Your task to perform on an android device: check out phone information Image 0: 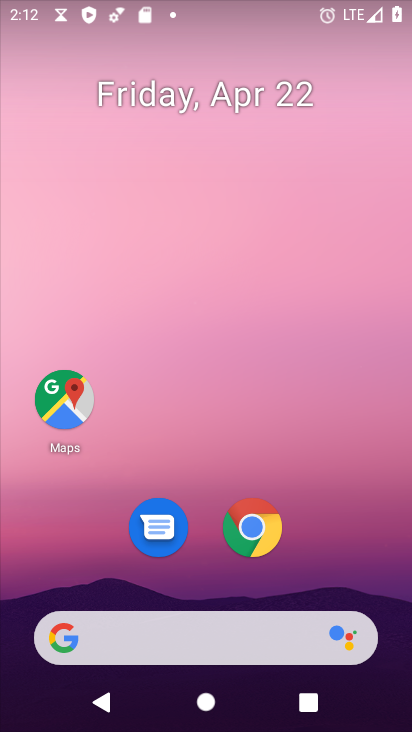
Step 0: drag from (298, 547) to (215, 160)
Your task to perform on an android device: check out phone information Image 1: 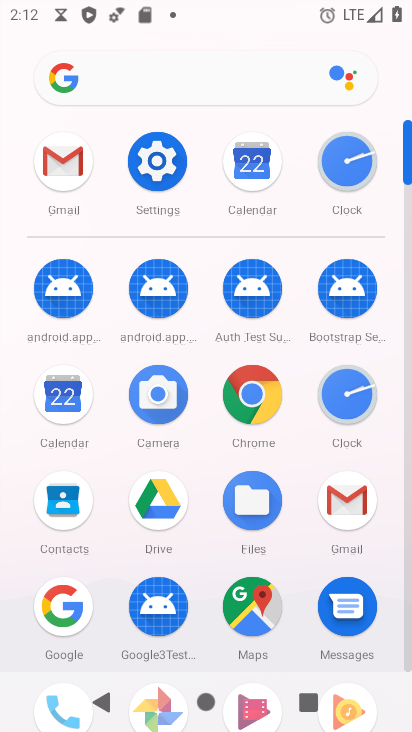
Step 1: drag from (106, 600) to (98, 207)
Your task to perform on an android device: check out phone information Image 2: 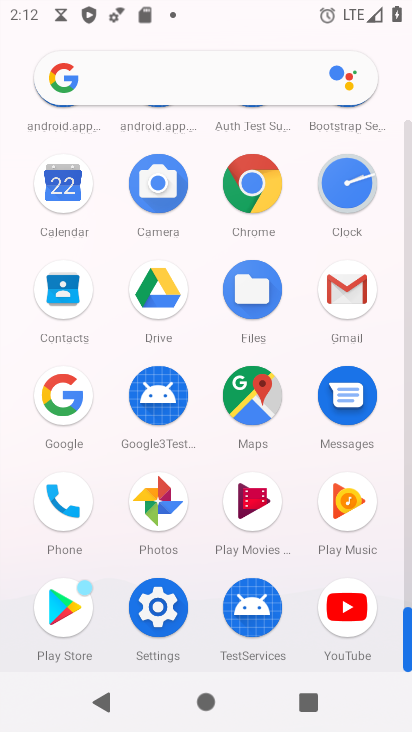
Step 2: click (62, 509)
Your task to perform on an android device: check out phone information Image 3: 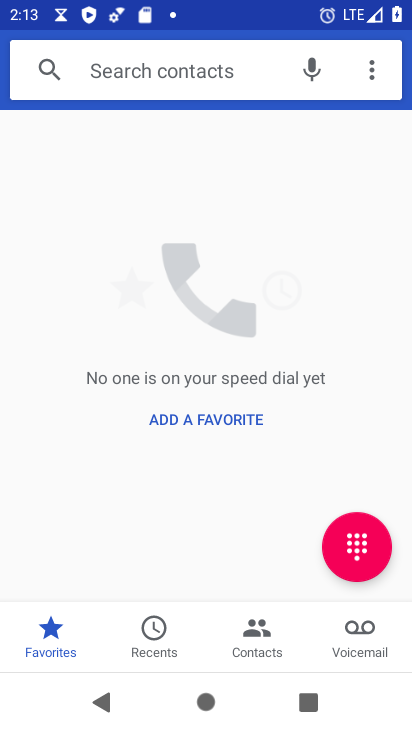
Step 3: click (365, 76)
Your task to perform on an android device: check out phone information Image 4: 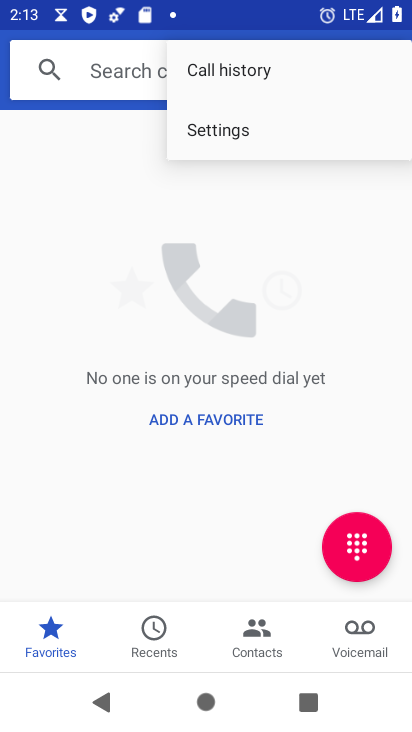
Step 4: click (227, 125)
Your task to perform on an android device: check out phone information Image 5: 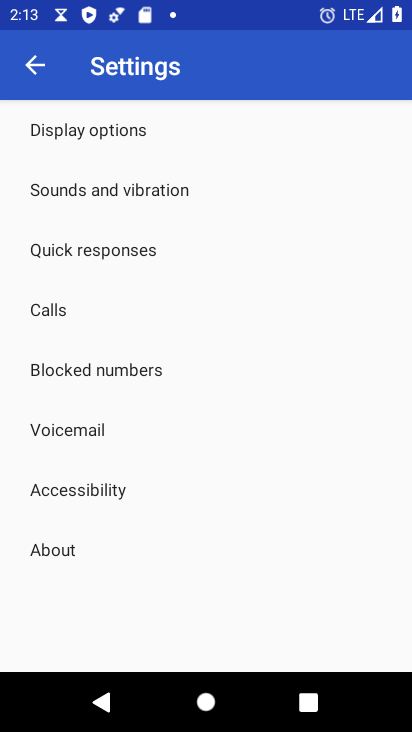
Step 5: click (78, 549)
Your task to perform on an android device: check out phone information Image 6: 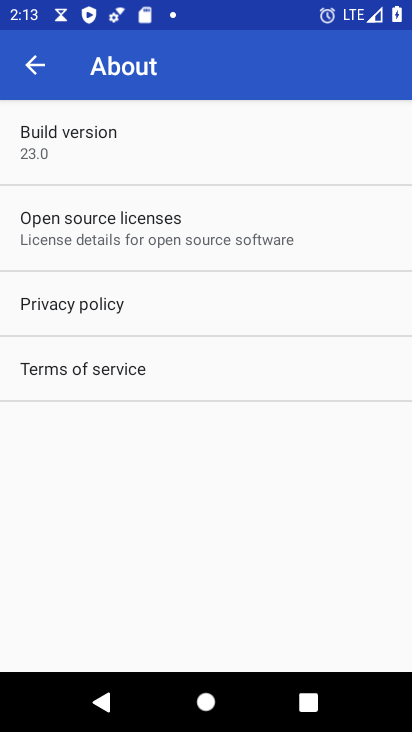
Step 6: task complete